Your task to perform on an android device: turn on improve location accuracy Image 0: 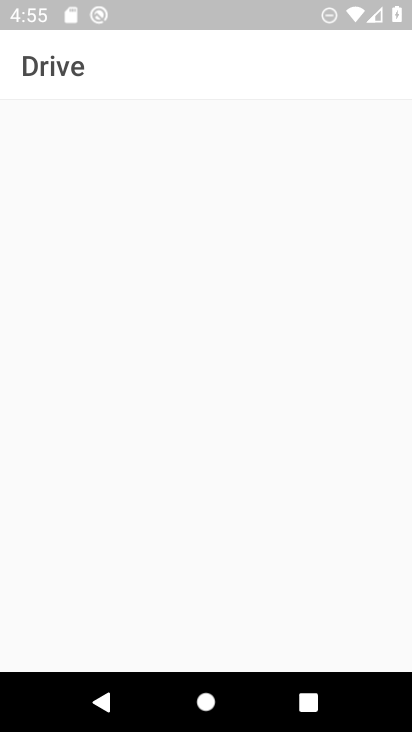
Step 0: press home button
Your task to perform on an android device: turn on improve location accuracy Image 1: 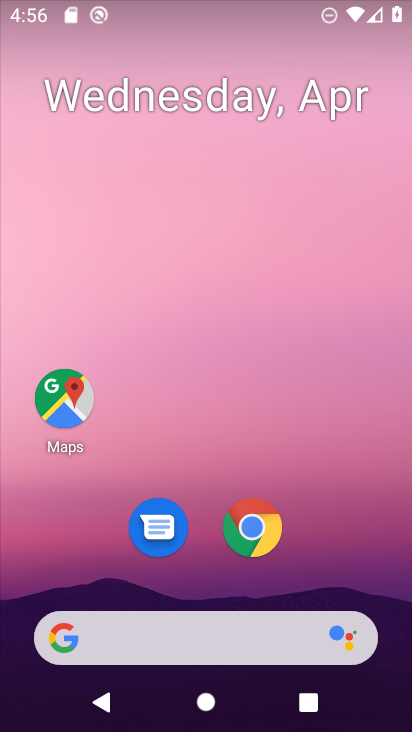
Step 1: drag from (367, 547) to (347, 3)
Your task to perform on an android device: turn on improve location accuracy Image 2: 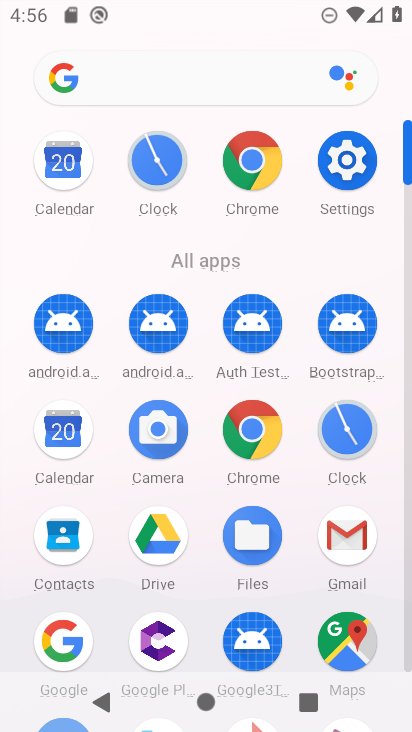
Step 2: click (342, 190)
Your task to perform on an android device: turn on improve location accuracy Image 3: 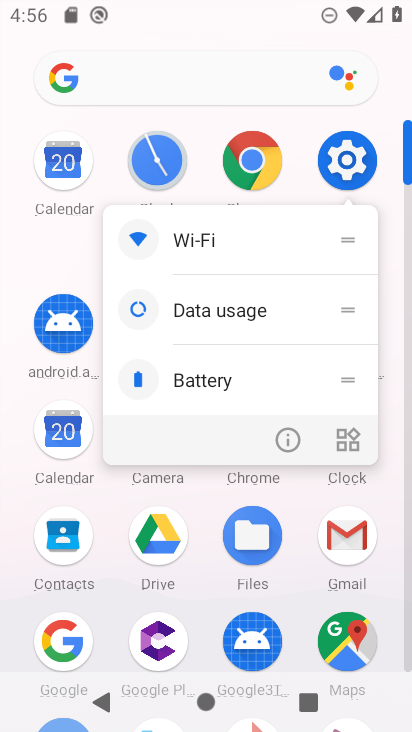
Step 3: click (349, 169)
Your task to perform on an android device: turn on improve location accuracy Image 4: 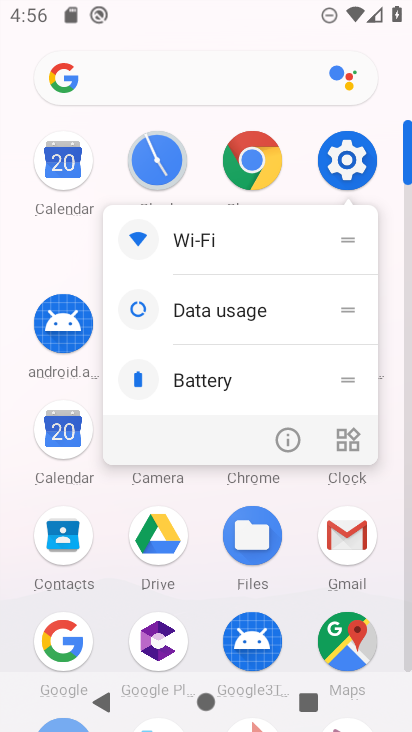
Step 4: click (349, 166)
Your task to perform on an android device: turn on improve location accuracy Image 5: 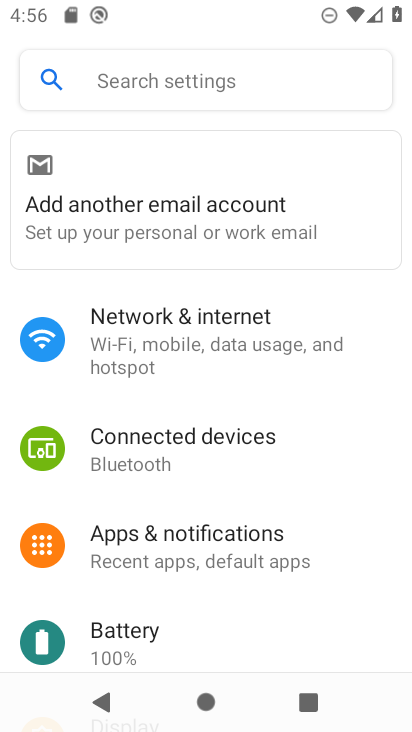
Step 5: drag from (322, 518) to (313, 91)
Your task to perform on an android device: turn on improve location accuracy Image 6: 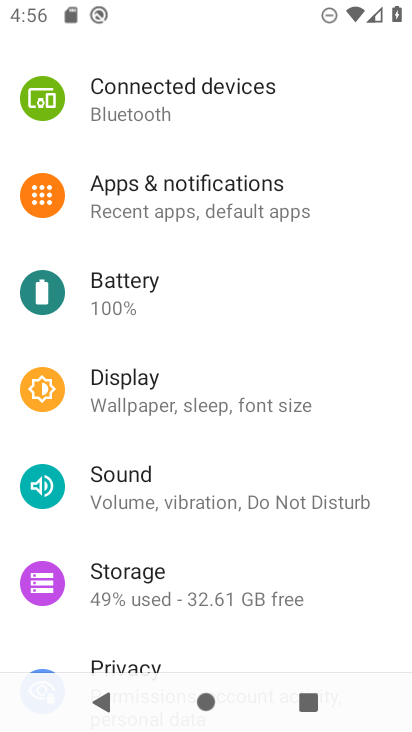
Step 6: drag from (265, 512) to (260, 144)
Your task to perform on an android device: turn on improve location accuracy Image 7: 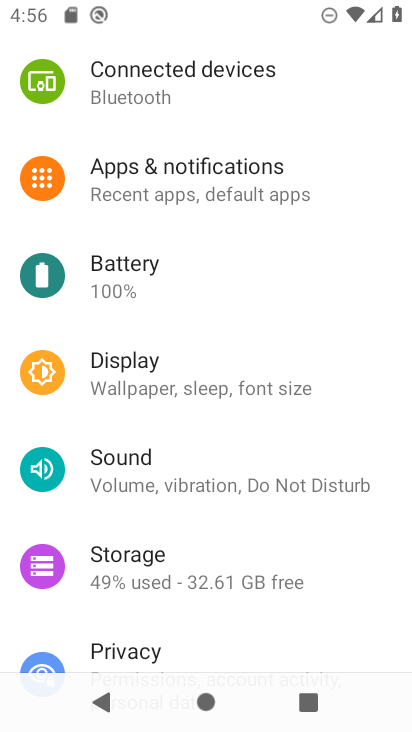
Step 7: drag from (312, 512) to (309, 178)
Your task to perform on an android device: turn on improve location accuracy Image 8: 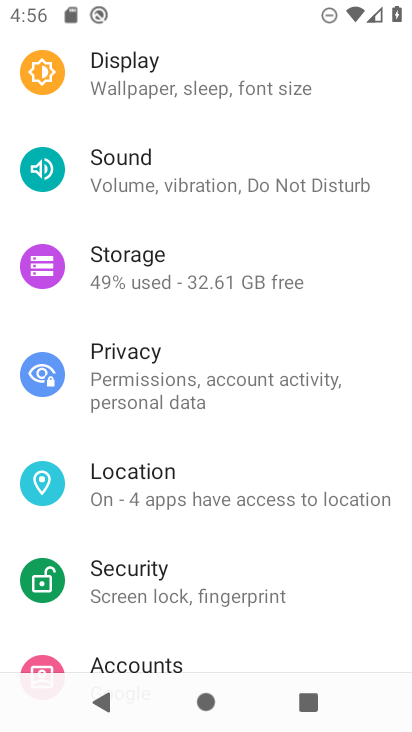
Step 8: click (135, 483)
Your task to perform on an android device: turn on improve location accuracy Image 9: 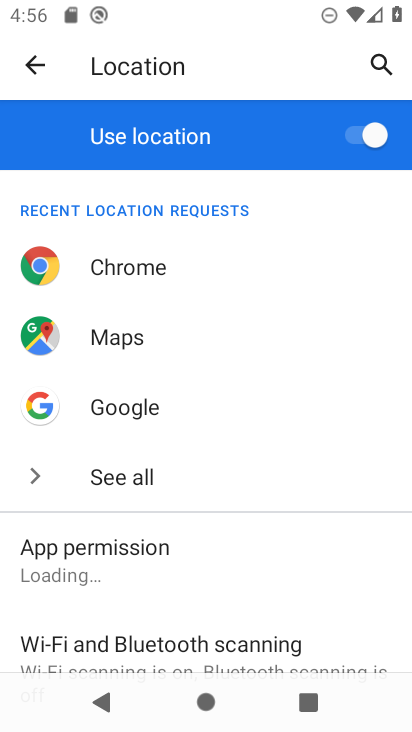
Step 9: drag from (194, 515) to (229, 125)
Your task to perform on an android device: turn on improve location accuracy Image 10: 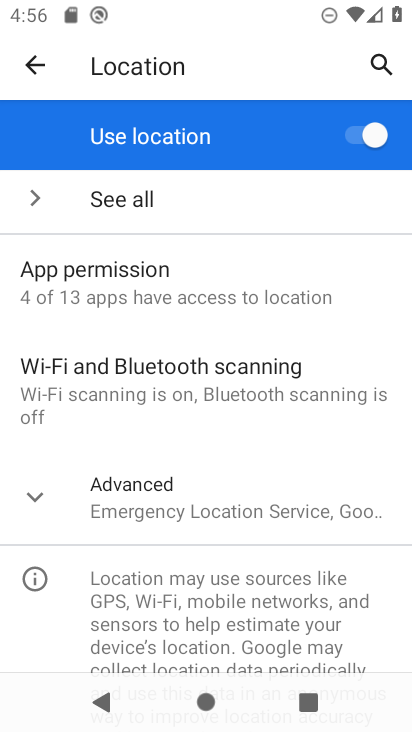
Step 10: click (31, 506)
Your task to perform on an android device: turn on improve location accuracy Image 11: 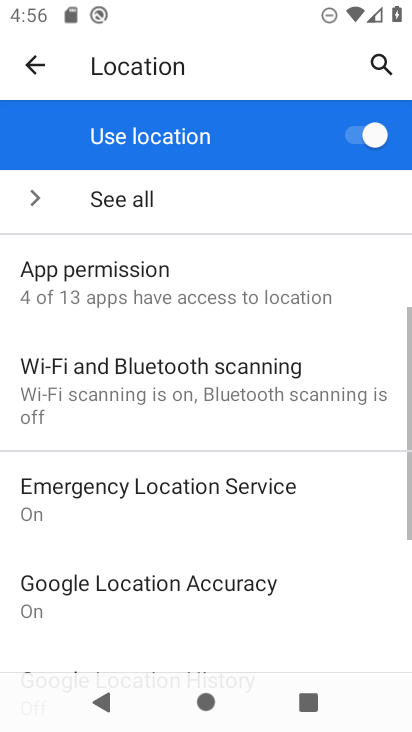
Step 11: drag from (157, 527) to (172, 310)
Your task to perform on an android device: turn on improve location accuracy Image 12: 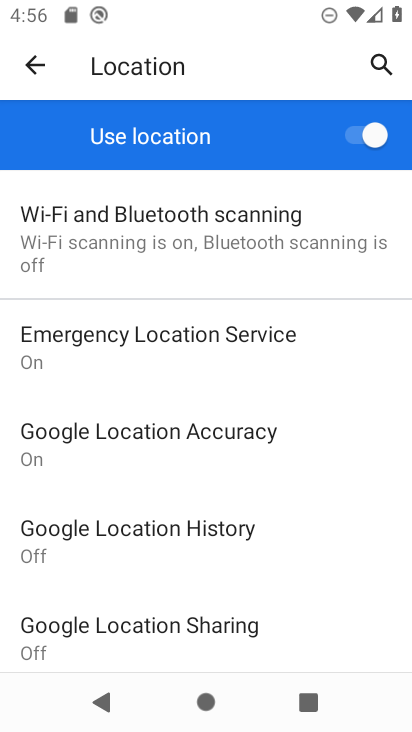
Step 12: click (76, 434)
Your task to perform on an android device: turn on improve location accuracy Image 13: 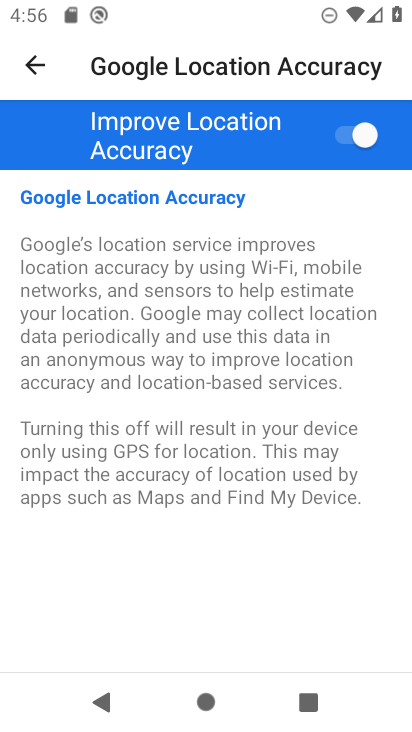
Step 13: task complete